Your task to perform on an android device: turn notification dots off Image 0: 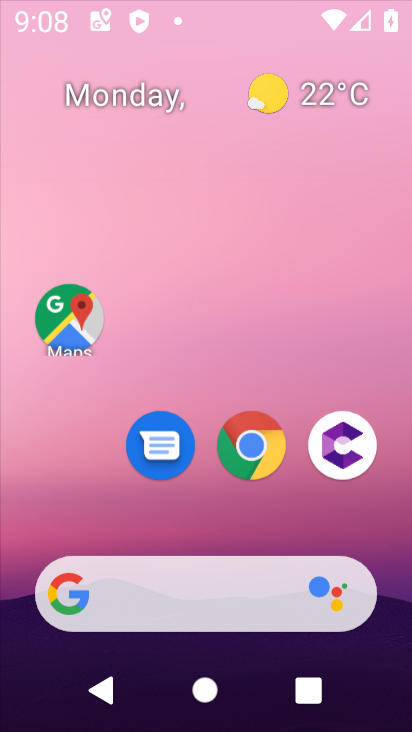
Step 0: press home button
Your task to perform on an android device: turn notification dots off Image 1: 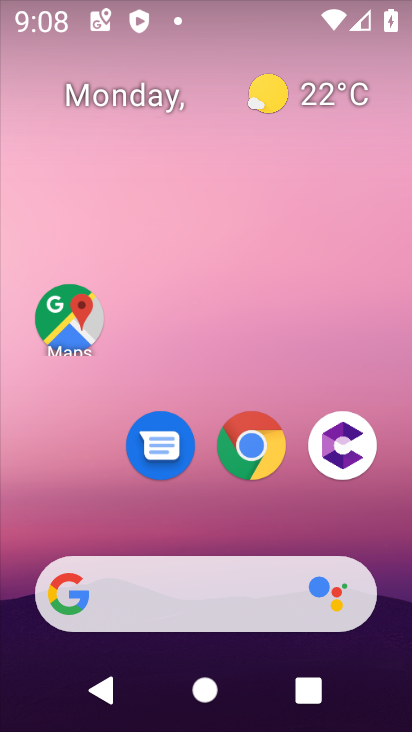
Step 1: drag from (200, 526) to (231, 22)
Your task to perform on an android device: turn notification dots off Image 2: 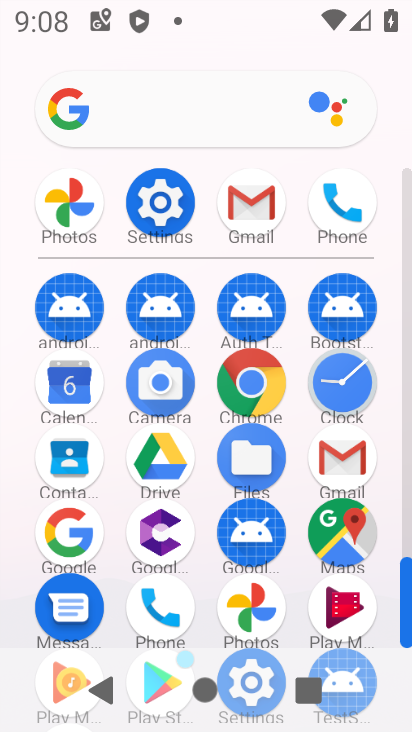
Step 2: click (163, 210)
Your task to perform on an android device: turn notification dots off Image 3: 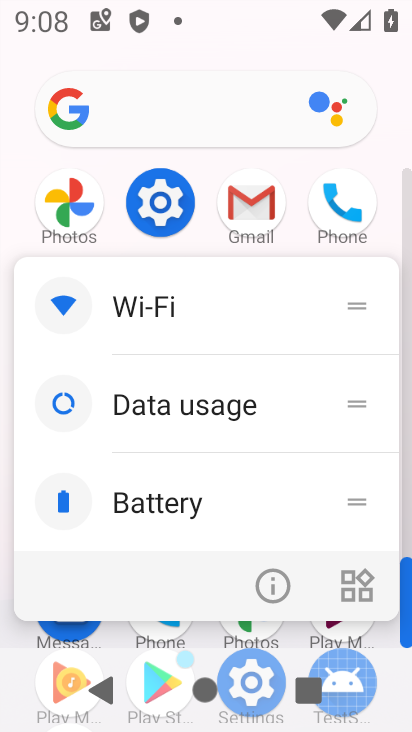
Step 3: click (163, 194)
Your task to perform on an android device: turn notification dots off Image 4: 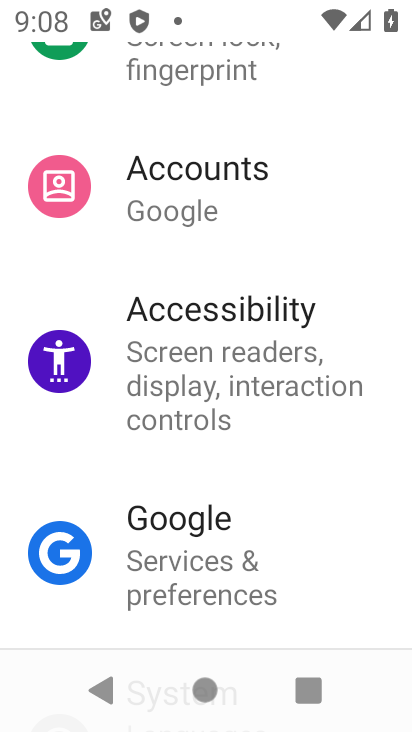
Step 4: drag from (313, 216) to (270, 581)
Your task to perform on an android device: turn notification dots off Image 5: 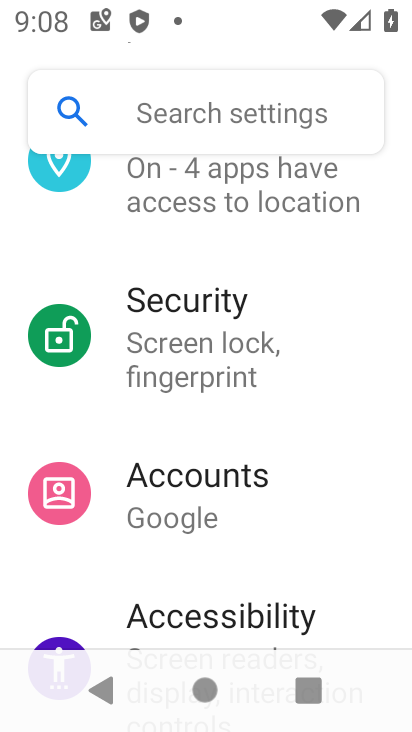
Step 5: drag from (294, 305) to (252, 513)
Your task to perform on an android device: turn notification dots off Image 6: 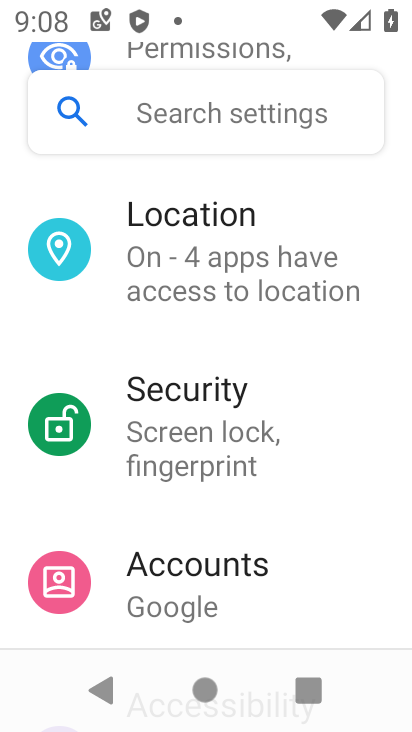
Step 6: drag from (273, 220) to (186, 679)
Your task to perform on an android device: turn notification dots off Image 7: 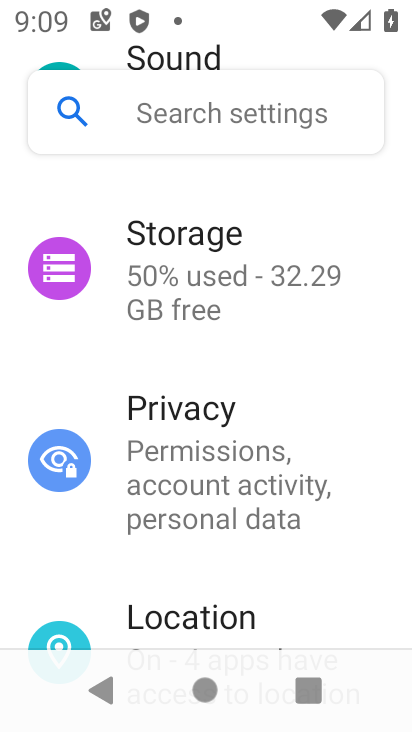
Step 7: drag from (291, 330) to (258, 724)
Your task to perform on an android device: turn notification dots off Image 8: 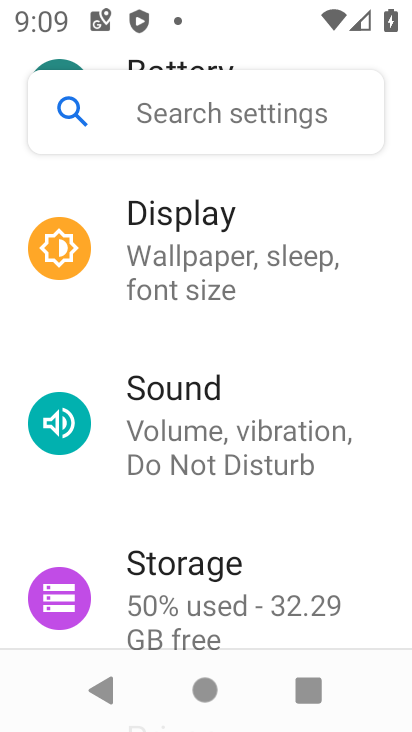
Step 8: drag from (357, 354) to (243, 719)
Your task to perform on an android device: turn notification dots off Image 9: 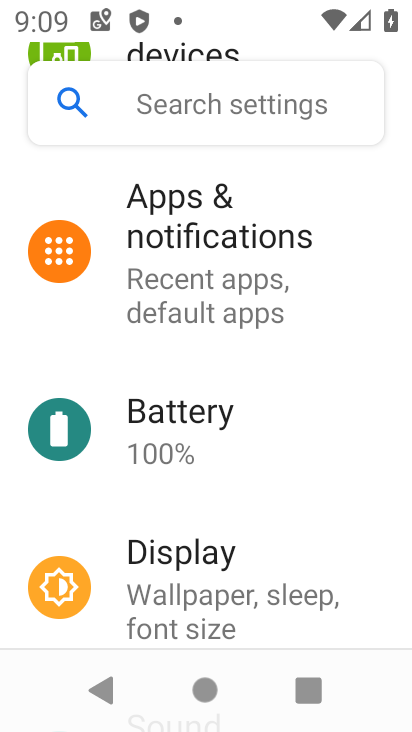
Step 9: click (173, 218)
Your task to perform on an android device: turn notification dots off Image 10: 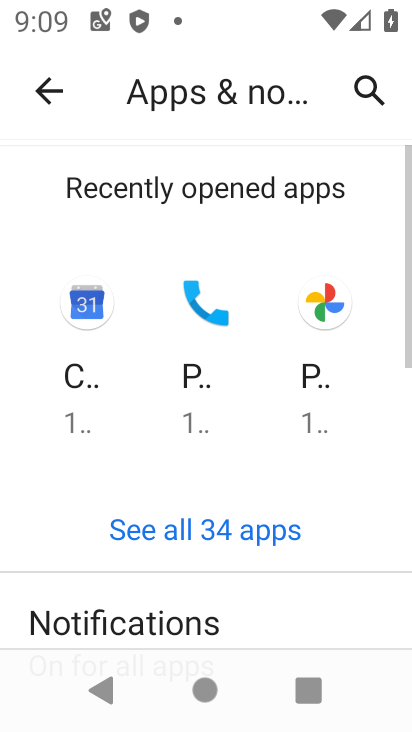
Step 10: click (148, 620)
Your task to perform on an android device: turn notification dots off Image 11: 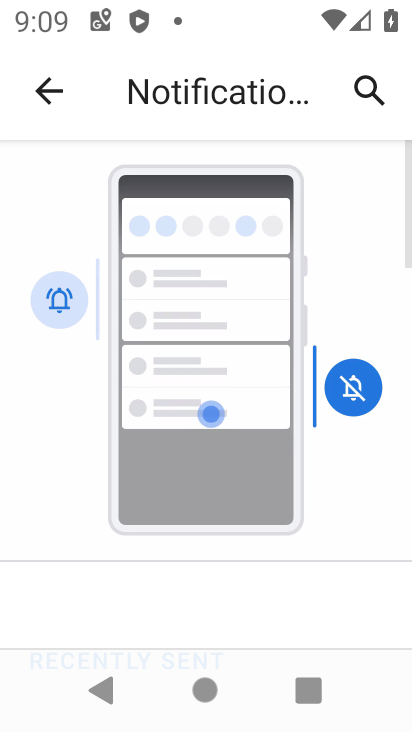
Step 11: drag from (290, 586) to (317, 0)
Your task to perform on an android device: turn notification dots off Image 12: 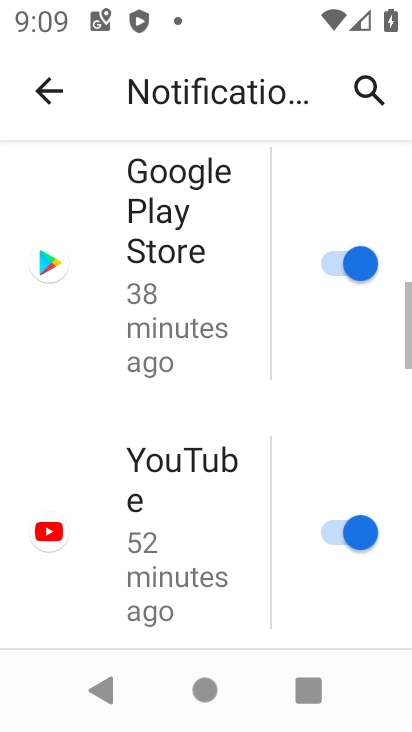
Step 12: drag from (358, 603) to (351, 7)
Your task to perform on an android device: turn notification dots off Image 13: 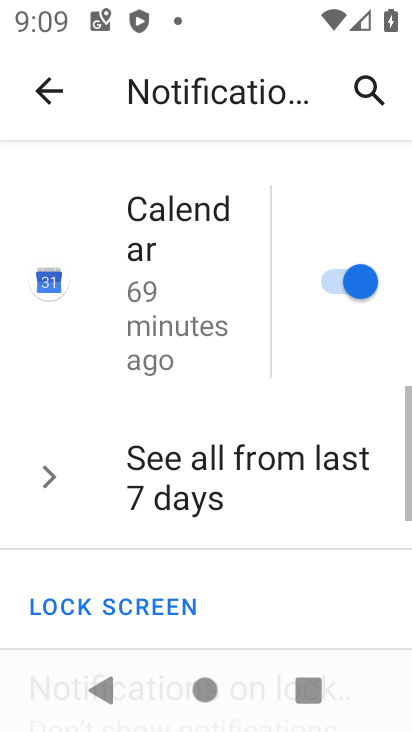
Step 13: drag from (277, 589) to (280, 66)
Your task to perform on an android device: turn notification dots off Image 14: 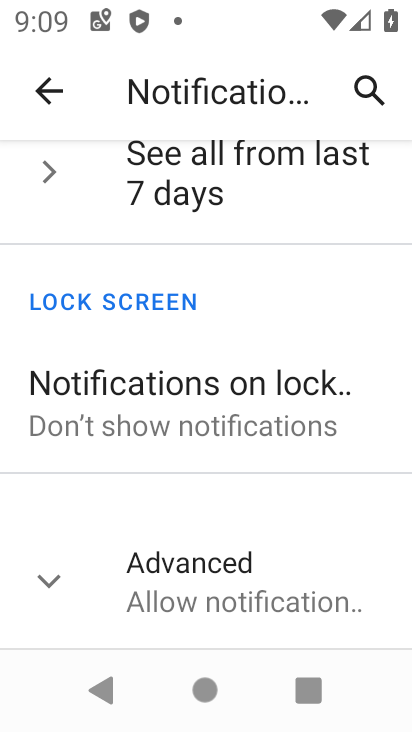
Step 14: click (183, 594)
Your task to perform on an android device: turn notification dots off Image 15: 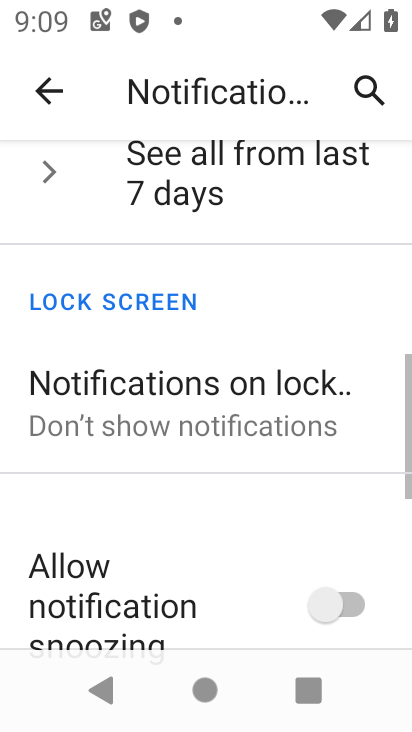
Step 15: drag from (227, 561) to (231, 84)
Your task to perform on an android device: turn notification dots off Image 16: 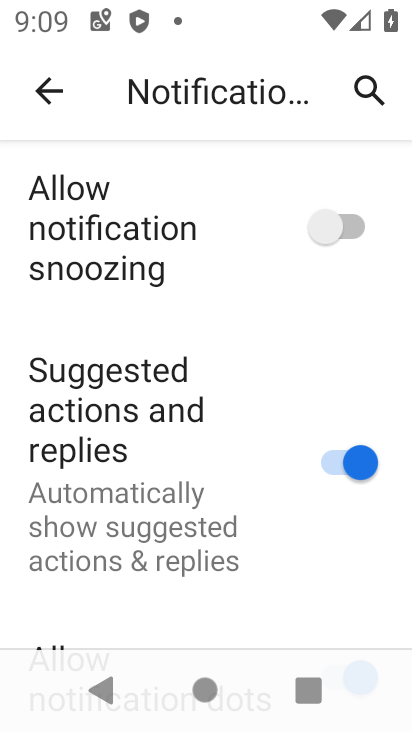
Step 16: drag from (268, 551) to (298, 169)
Your task to perform on an android device: turn notification dots off Image 17: 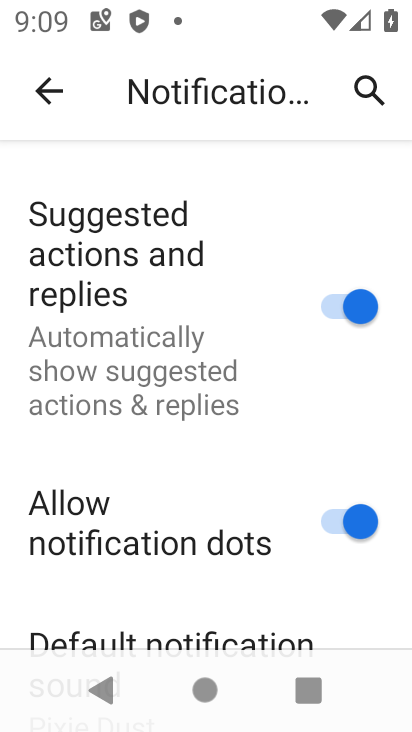
Step 17: click (361, 520)
Your task to perform on an android device: turn notification dots off Image 18: 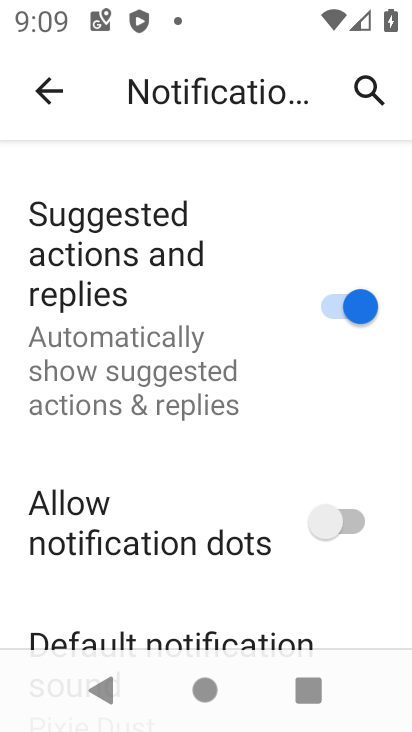
Step 18: task complete